Your task to perform on an android device: Open Google Chrome and click the shortcut for Amazon.com Image 0: 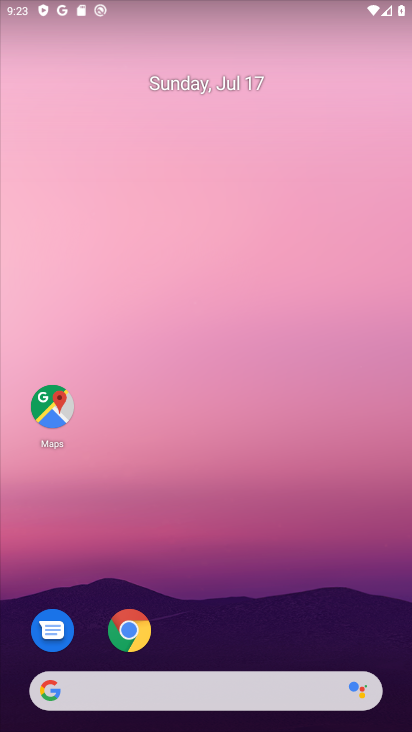
Step 0: click (132, 624)
Your task to perform on an android device: Open Google Chrome and click the shortcut for Amazon.com Image 1: 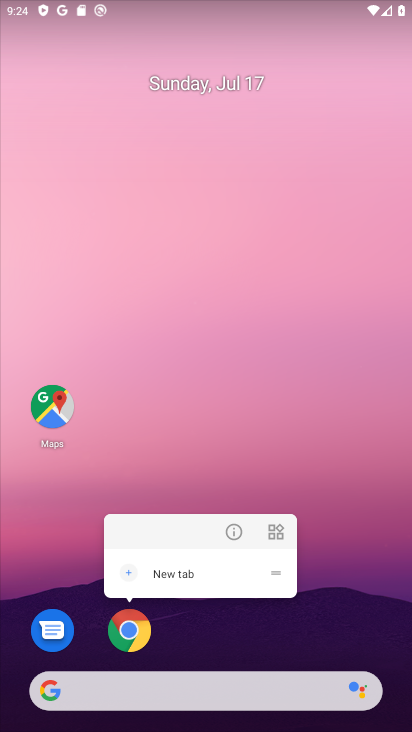
Step 1: click (138, 628)
Your task to perform on an android device: Open Google Chrome and click the shortcut for Amazon.com Image 2: 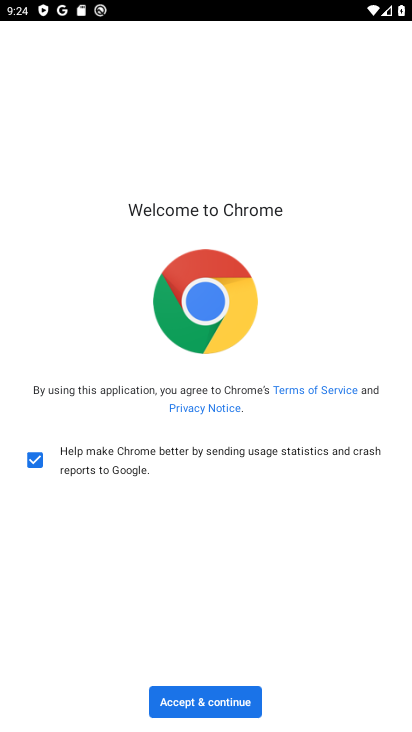
Step 2: click (221, 693)
Your task to perform on an android device: Open Google Chrome and click the shortcut for Amazon.com Image 3: 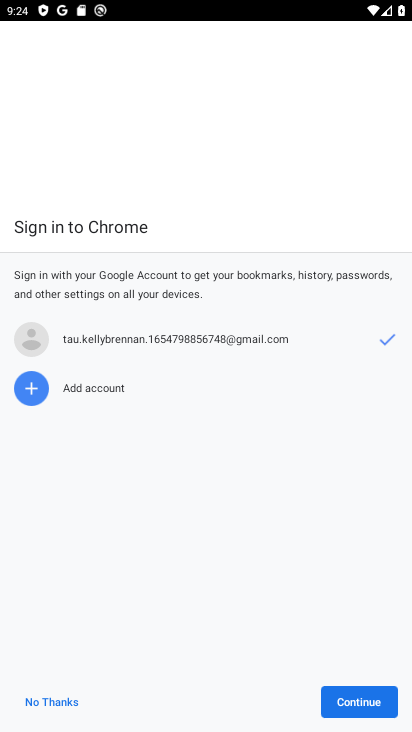
Step 3: click (345, 698)
Your task to perform on an android device: Open Google Chrome and click the shortcut for Amazon.com Image 4: 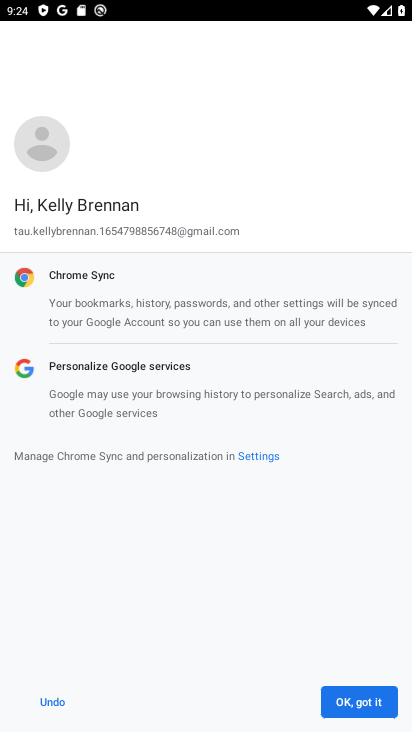
Step 4: click (378, 707)
Your task to perform on an android device: Open Google Chrome and click the shortcut for Amazon.com Image 5: 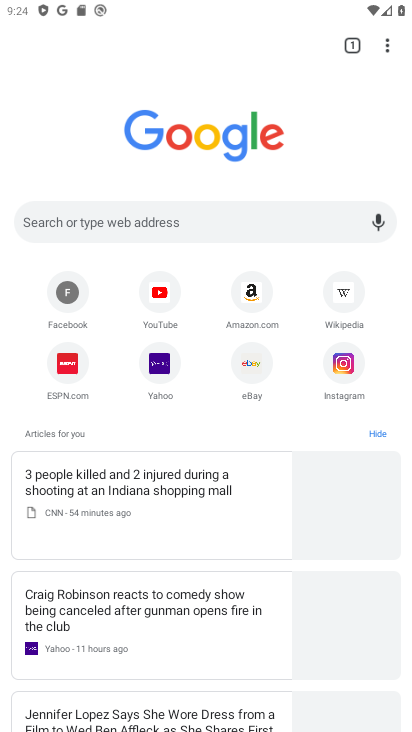
Step 5: click (247, 289)
Your task to perform on an android device: Open Google Chrome and click the shortcut for Amazon.com Image 6: 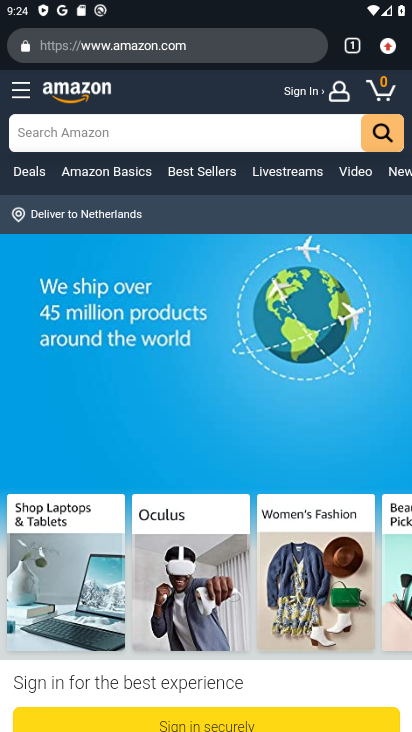
Step 6: task complete